Your task to perform on an android device: open app "Messages" (install if not already installed) and enter user name: "Hersey@inbox.com" and password: "facings" Image 0: 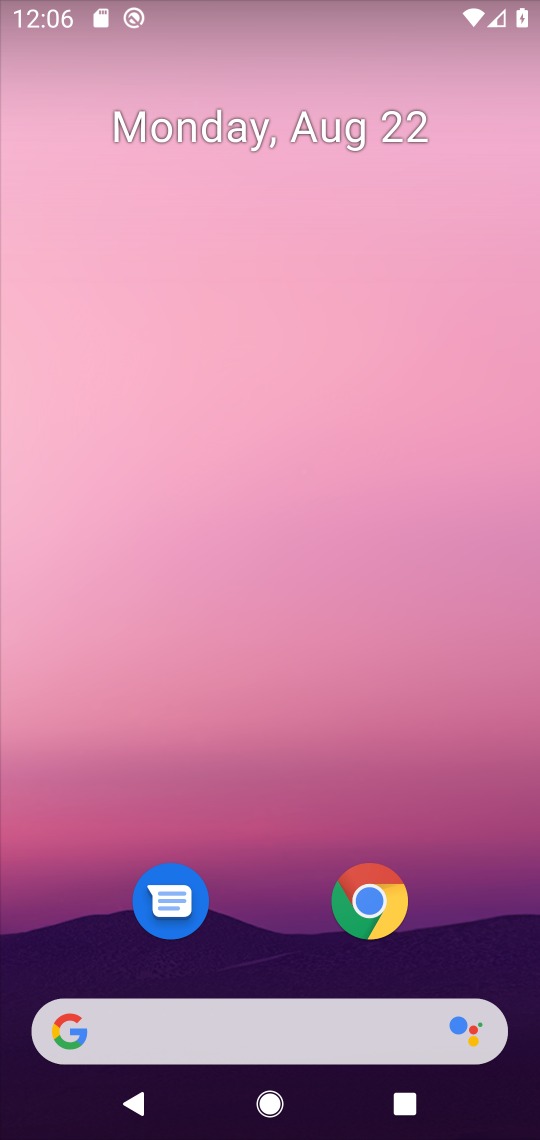
Step 0: drag from (275, 966) to (331, 129)
Your task to perform on an android device: open app "Messages" (install if not already installed) and enter user name: "Hersey@inbox.com" and password: "facings" Image 1: 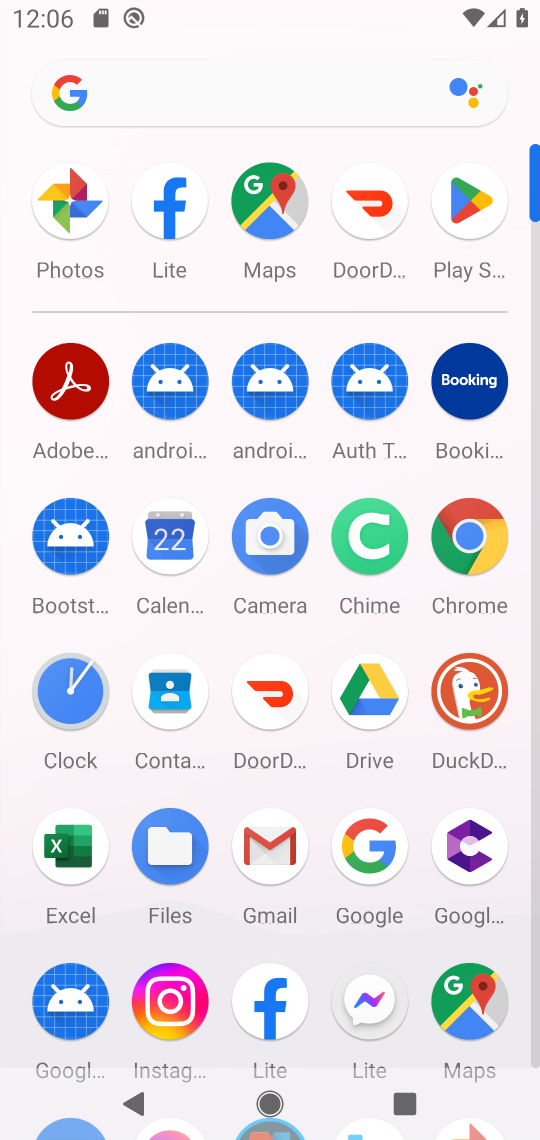
Step 1: press home button
Your task to perform on an android device: open app "Messages" (install if not already installed) and enter user name: "Hersey@inbox.com" and password: "facings" Image 2: 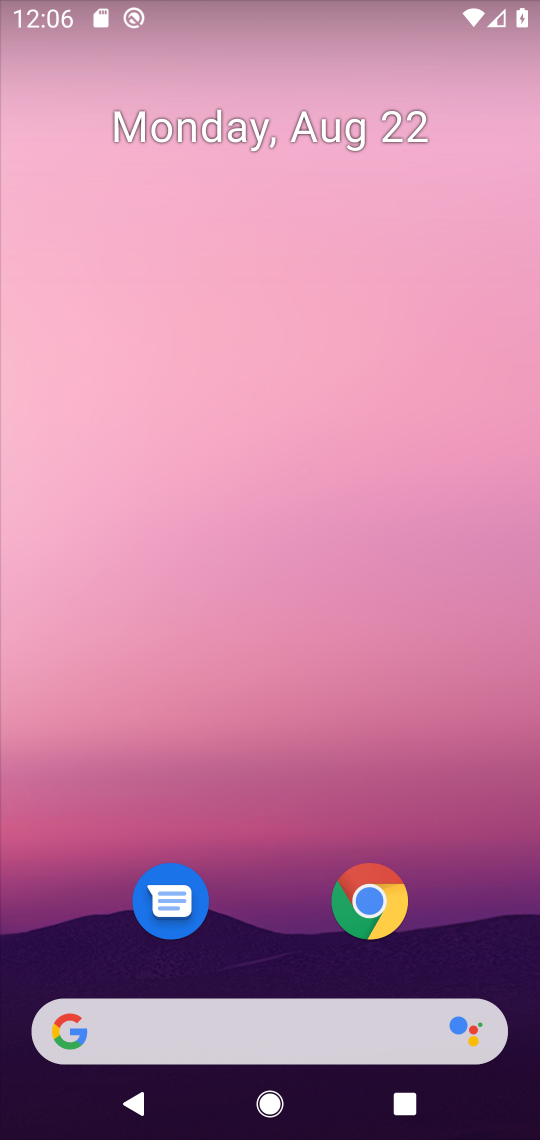
Step 2: click (334, 731)
Your task to perform on an android device: open app "Messages" (install if not already installed) and enter user name: "Hersey@inbox.com" and password: "facings" Image 3: 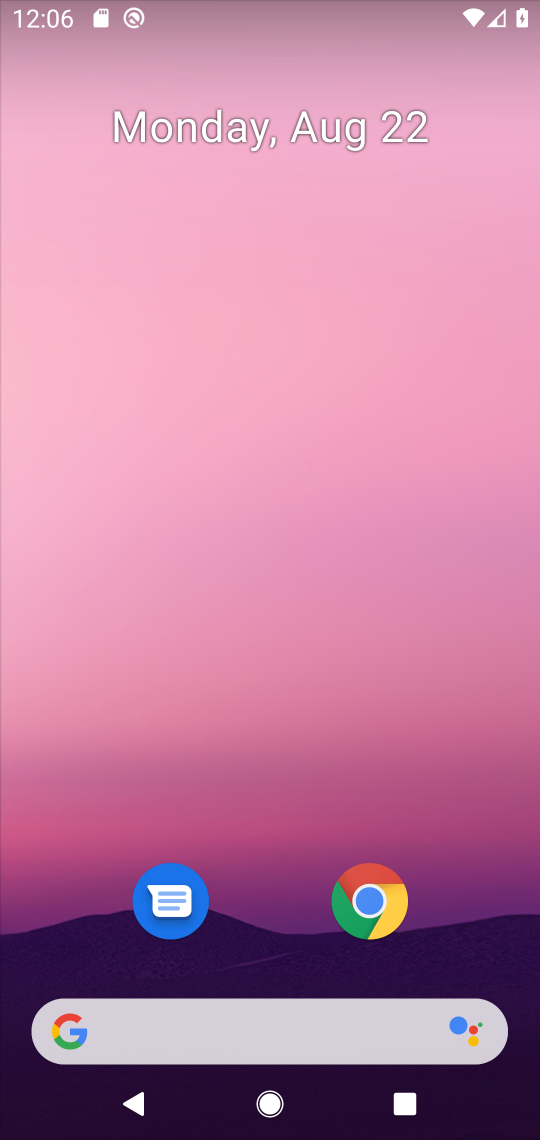
Step 3: click (193, 881)
Your task to perform on an android device: open app "Messages" (install if not already installed) and enter user name: "Hersey@inbox.com" and password: "facings" Image 4: 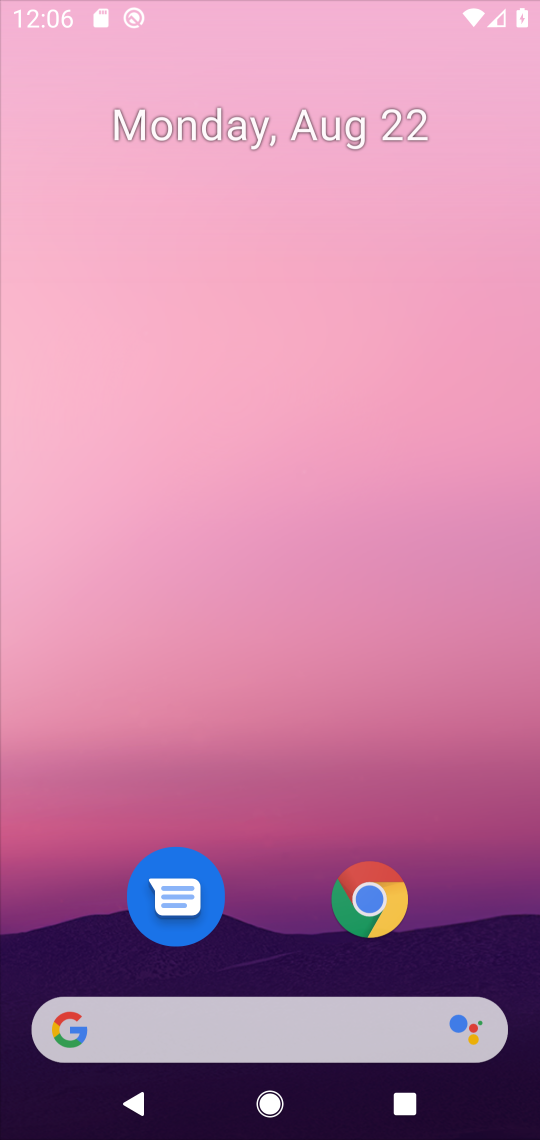
Step 4: task complete